Your task to perform on an android device: turn on priority inbox in the gmail app Image 0: 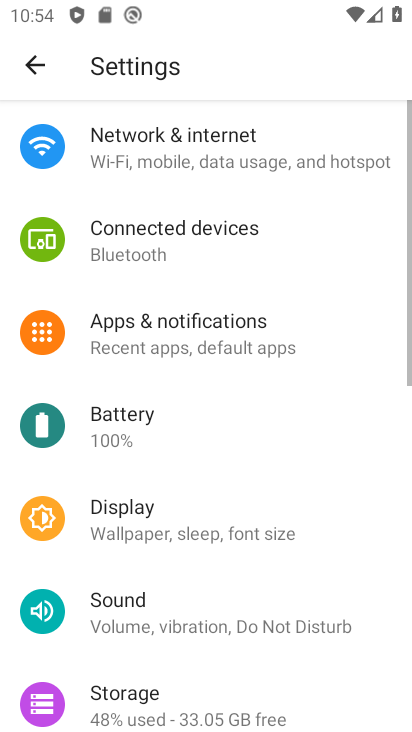
Step 0: press back button
Your task to perform on an android device: turn on priority inbox in the gmail app Image 1: 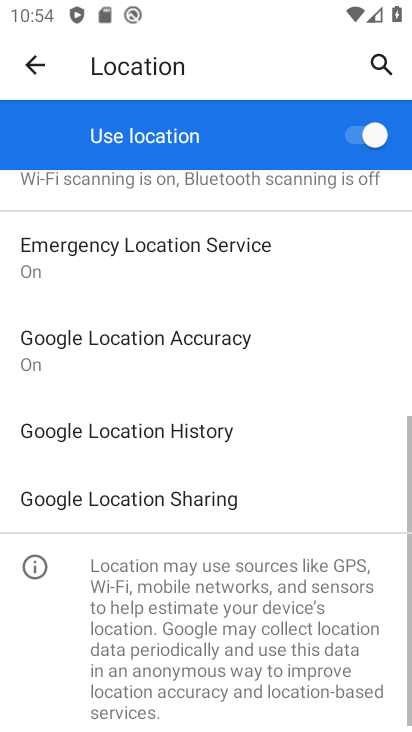
Step 1: press home button
Your task to perform on an android device: turn on priority inbox in the gmail app Image 2: 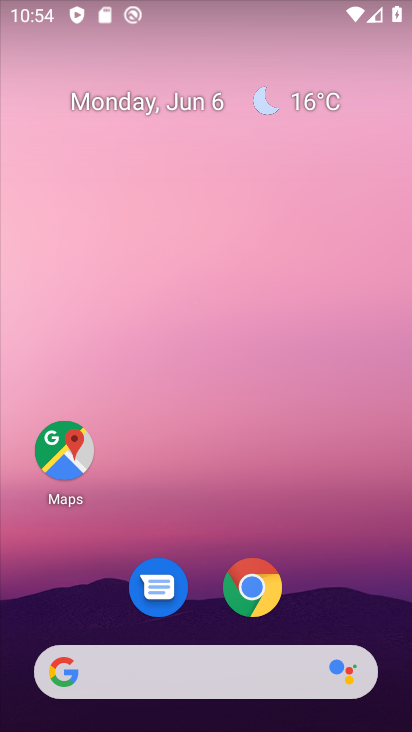
Step 2: drag from (321, 553) to (274, 46)
Your task to perform on an android device: turn on priority inbox in the gmail app Image 3: 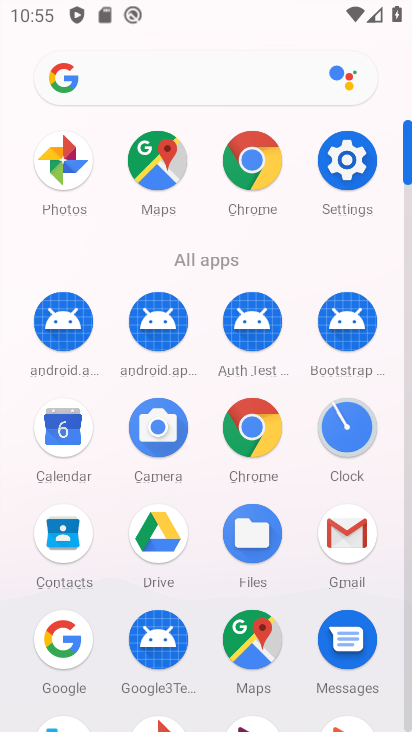
Step 3: click (346, 524)
Your task to perform on an android device: turn on priority inbox in the gmail app Image 4: 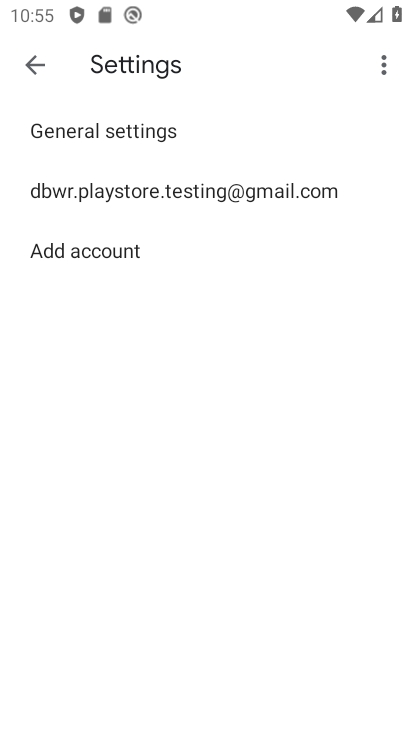
Step 4: click (39, 63)
Your task to perform on an android device: turn on priority inbox in the gmail app Image 5: 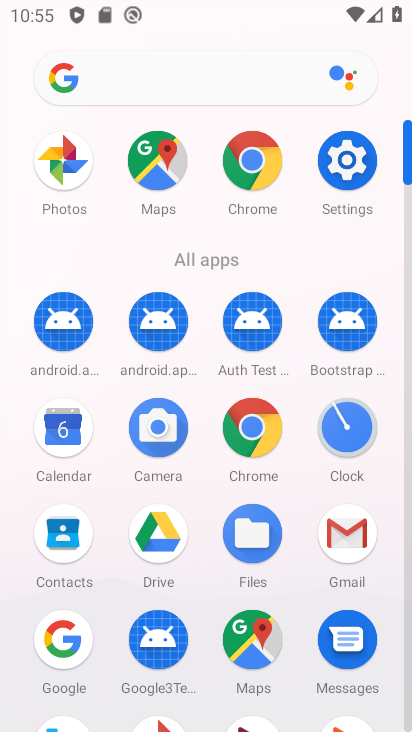
Step 5: click (351, 533)
Your task to perform on an android device: turn on priority inbox in the gmail app Image 6: 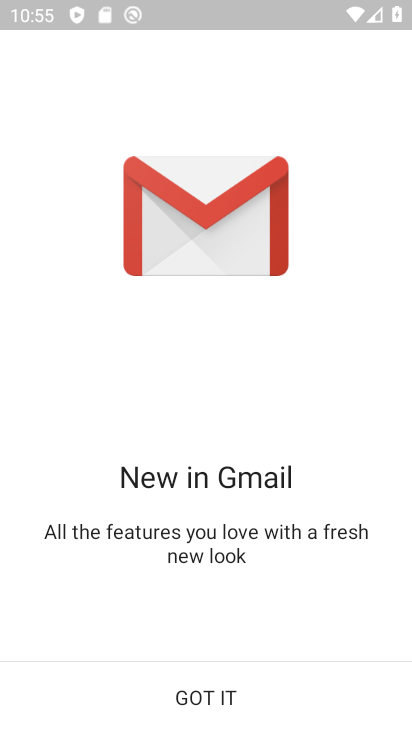
Step 6: click (198, 688)
Your task to perform on an android device: turn on priority inbox in the gmail app Image 7: 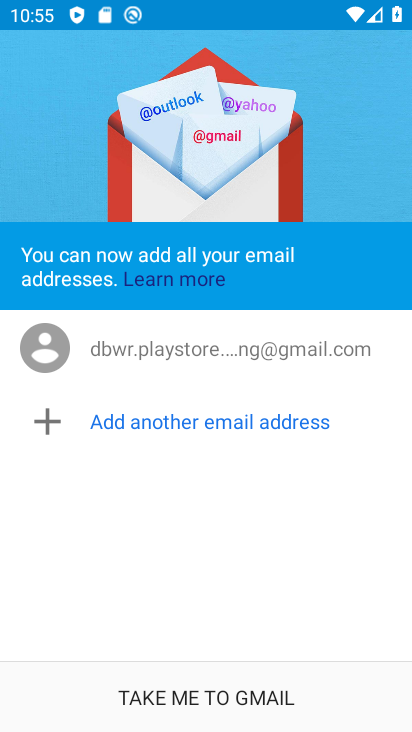
Step 7: click (188, 686)
Your task to perform on an android device: turn on priority inbox in the gmail app Image 8: 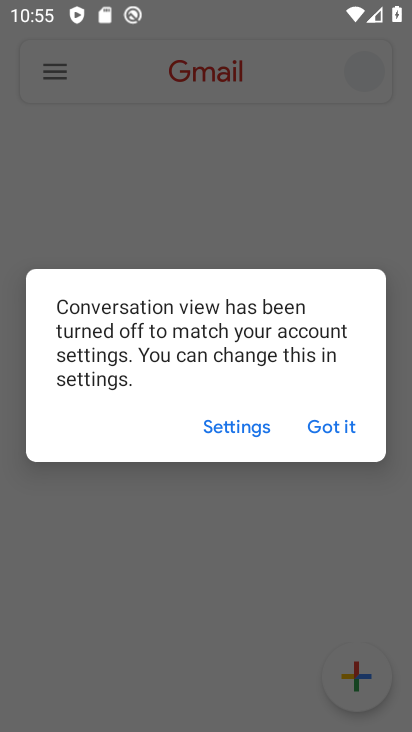
Step 8: click (332, 419)
Your task to perform on an android device: turn on priority inbox in the gmail app Image 9: 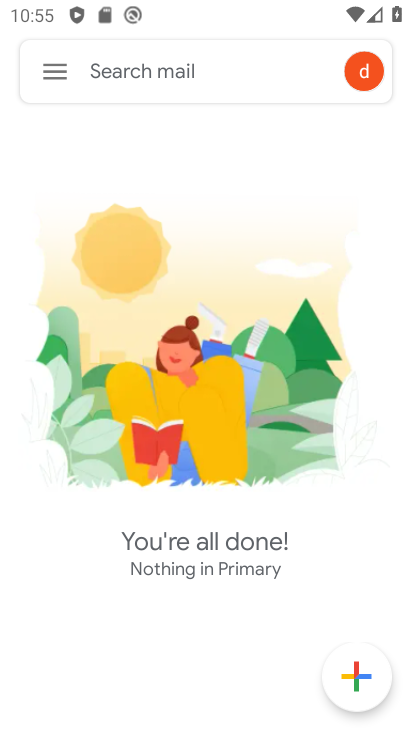
Step 9: click (47, 75)
Your task to perform on an android device: turn on priority inbox in the gmail app Image 10: 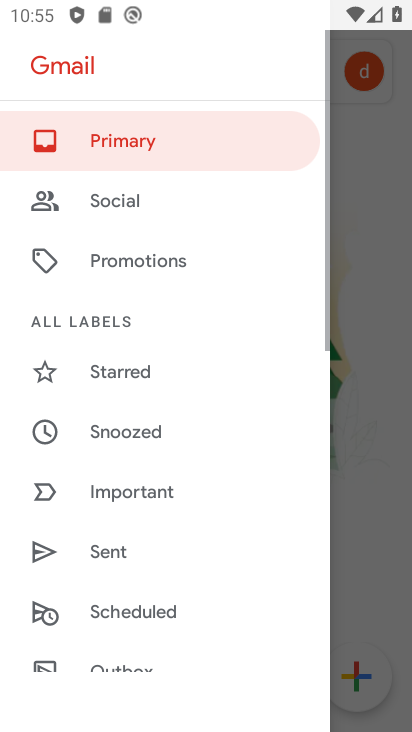
Step 10: drag from (225, 609) to (220, 151)
Your task to perform on an android device: turn on priority inbox in the gmail app Image 11: 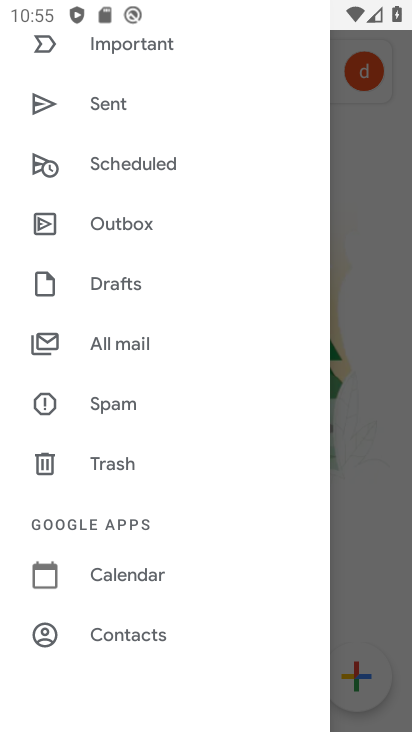
Step 11: drag from (161, 609) to (212, 230)
Your task to perform on an android device: turn on priority inbox in the gmail app Image 12: 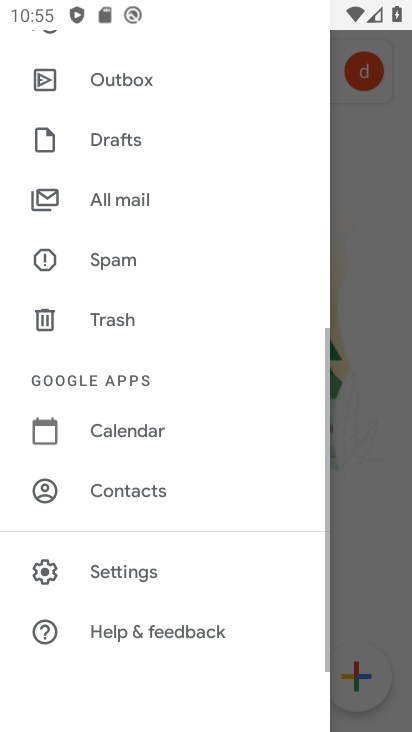
Step 12: click (115, 567)
Your task to perform on an android device: turn on priority inbox in the gmail app Image 13: 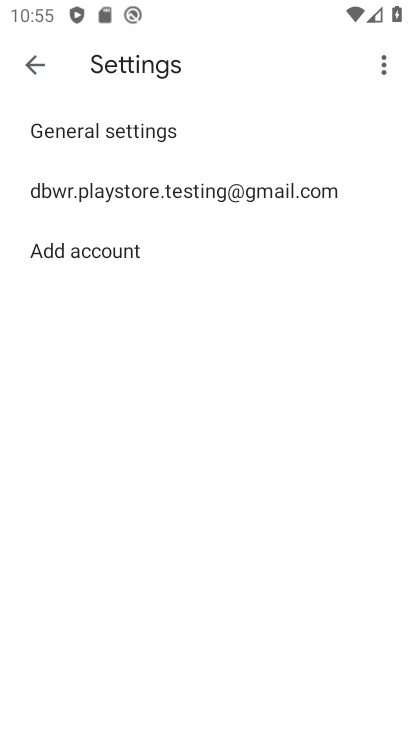
Step 13: click (156, 195)
Your task to perform on an android device: turn on priority inbox in the gmail app Image 14: 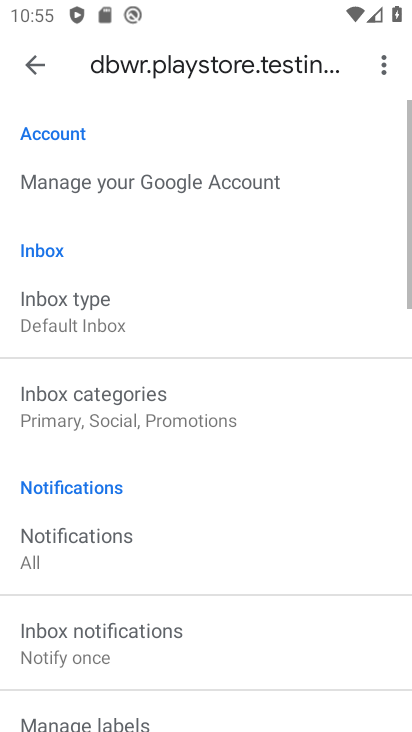
Step 14: click (92, 314)
Your task to perform on an android device: turn on priority inbox in the gmail app Image 15: 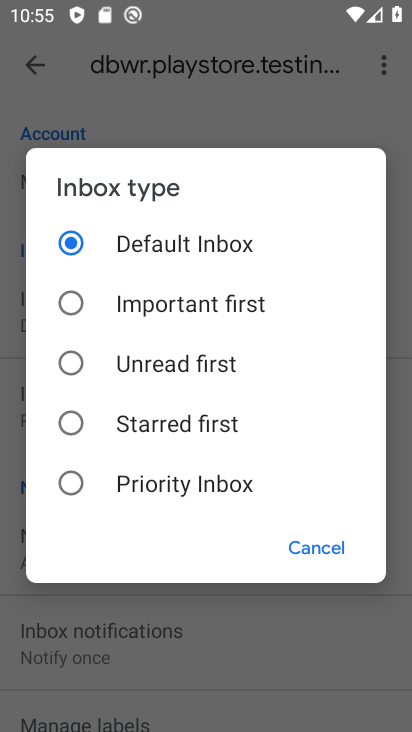
Step 15: click (170, 478)
Your task to perform on an android device: turn on priority inbox in the gmail app Image 16: 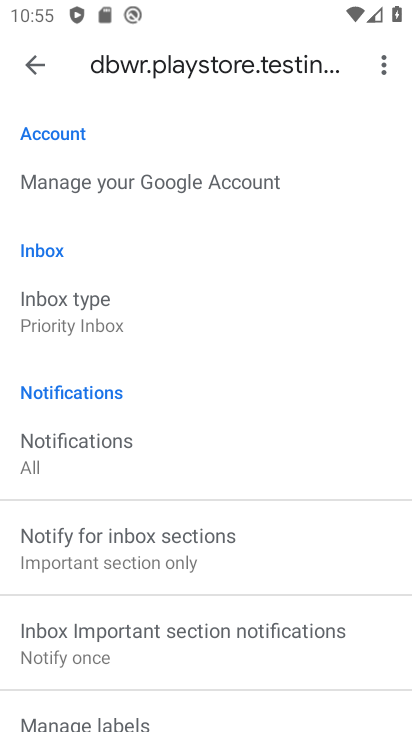
Step 16: task complete